Your task to perform on an android device: Open Google Maps Image 0: 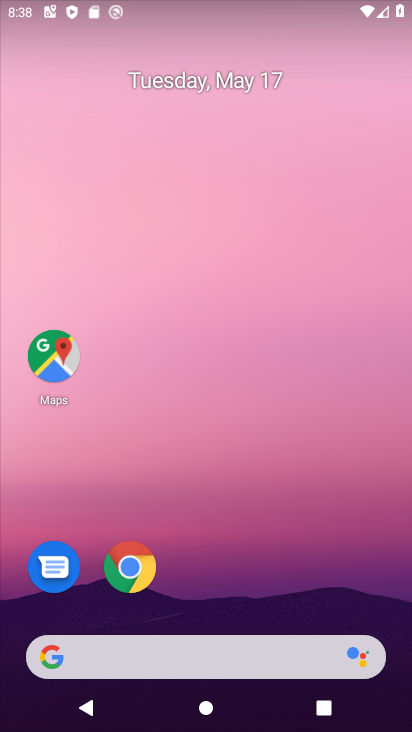
Step 0: click (39, 354)
Your task to perform on an android device: Open Google Maps Image 1: 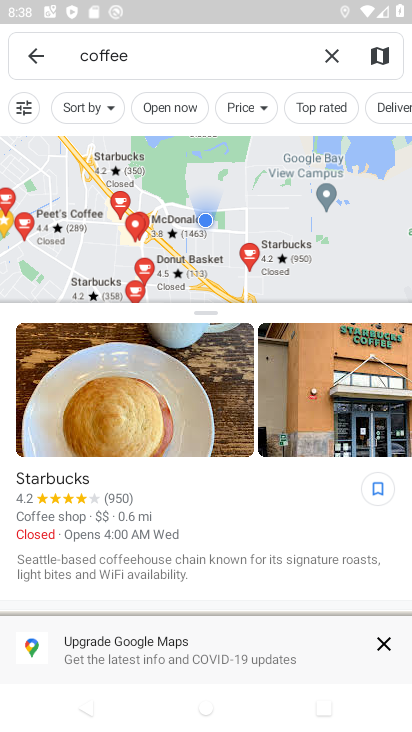
Step 1: task complete